Your task to perform on an android device: toggle improve location accuracy Image 0: 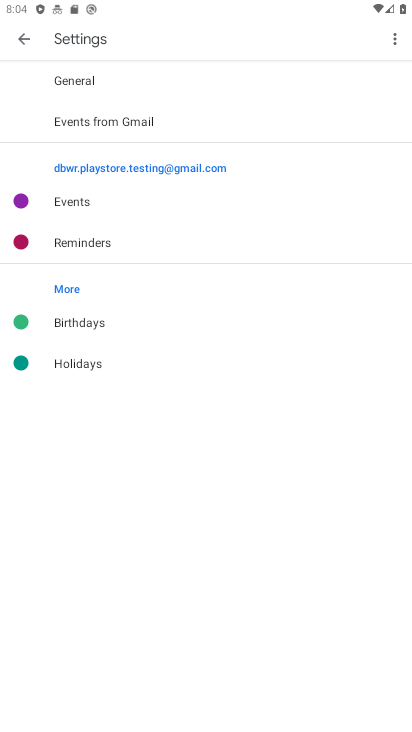
Step 0: press back button
Your task to perform on an android device: toggle improve location accuracy Image 1: 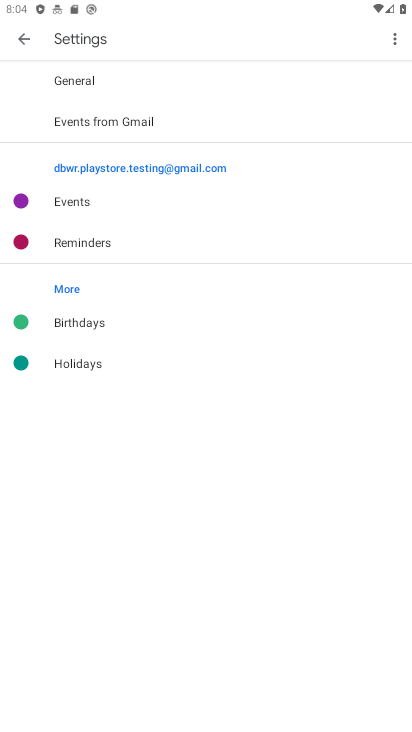
Step 1: press back button
Your task to perform on an android device: toggle improve location accuracy Image 2: 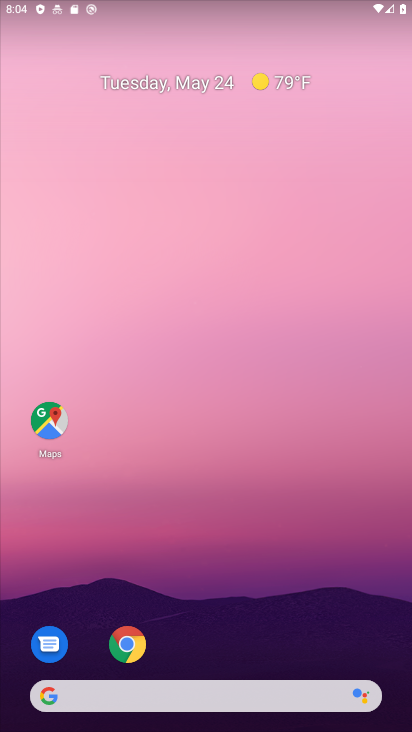
Step 2: drag from (199, 250) to (194, 16)
Your task to perform on an android device: toggle improve location accuracy Image 3: 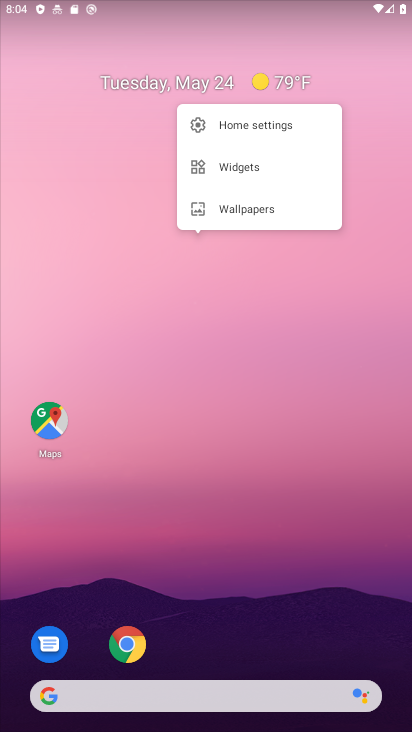
Step 3: drag from (243, 651) to (236, 182)
Your task to perform on an android device: toggle improve location accuracy Image 4: 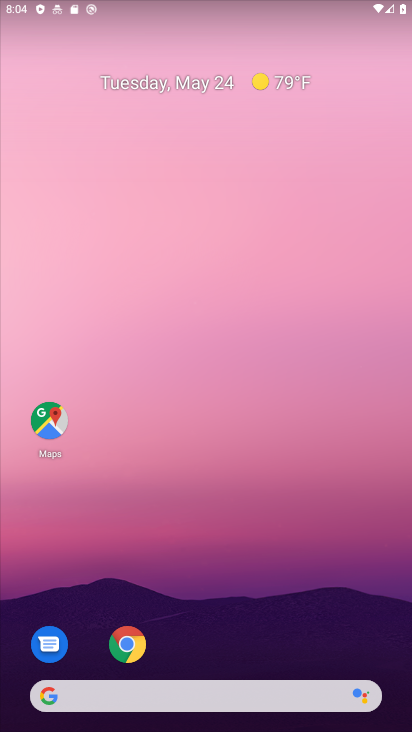
Step 4: drag from (188, 170) to (202, 113)
Your task to perform on an android device: toggle improve location accuracy Image 5: 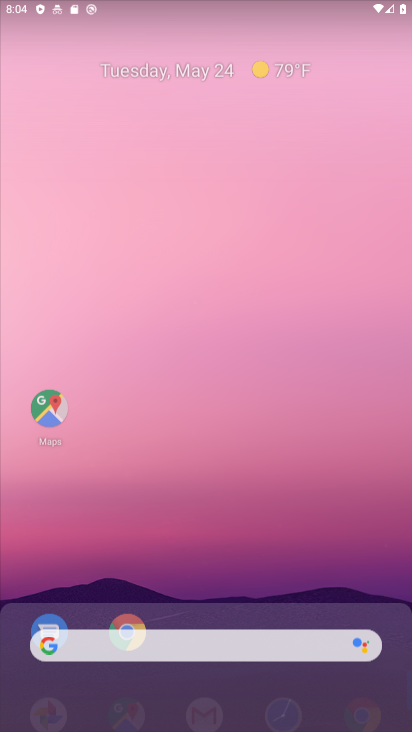
Step 5: drag from (145, 154) to (121, 11)
Your task to perform on an android device: toggle improve location accuracy Image 6: 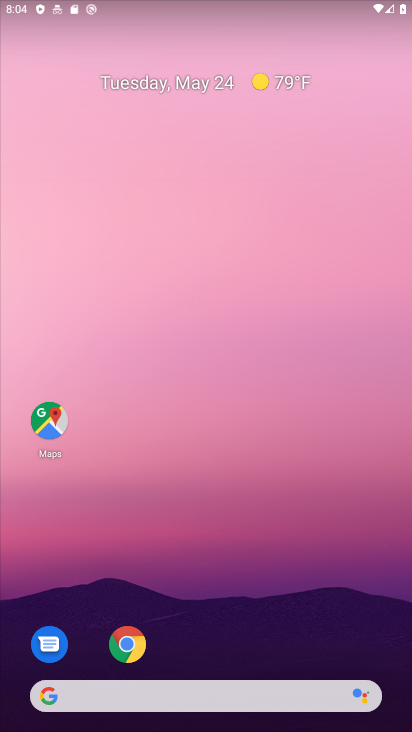
Step 6: drag from (157, 498) to (259, 14)
Your task to perform on an android device: toggle improve location accuracy Image 7: 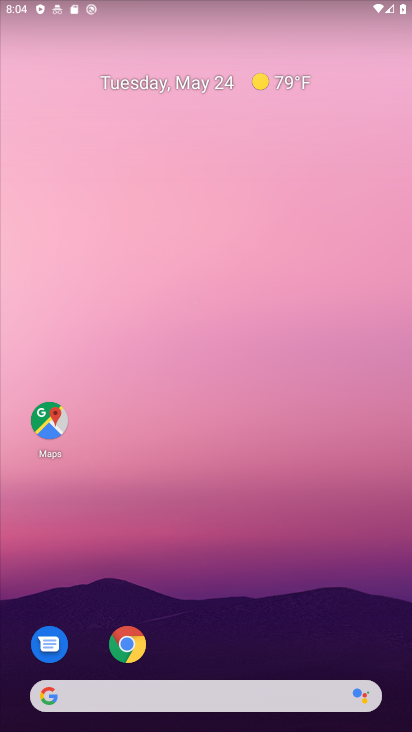
Step 7: click (233, 32)
Your task to perform on an android device: toggle improve location accuracy Image 8: 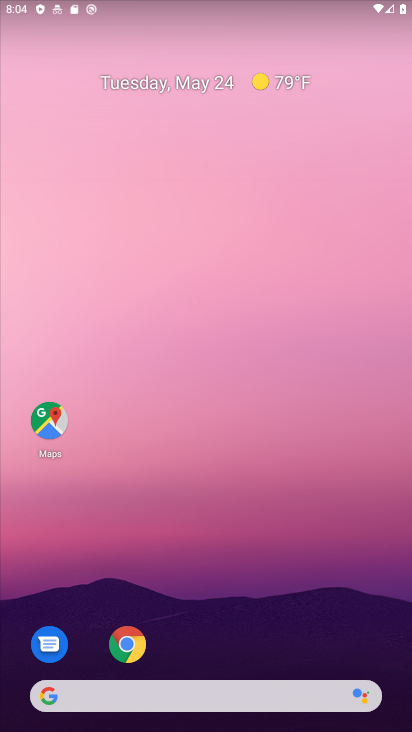
Step 8: drag from (71, 543) to (261, 114)
Your task to perform on an android device: toggle improve location accuracy Image 9: 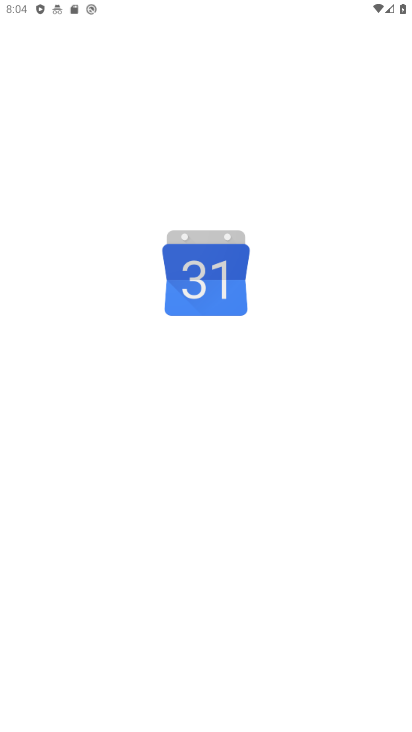
Step 9: drag from (224, 343) to (142, 16)
Your task to perform on an android device: toggle improve location accuracy Image 10: 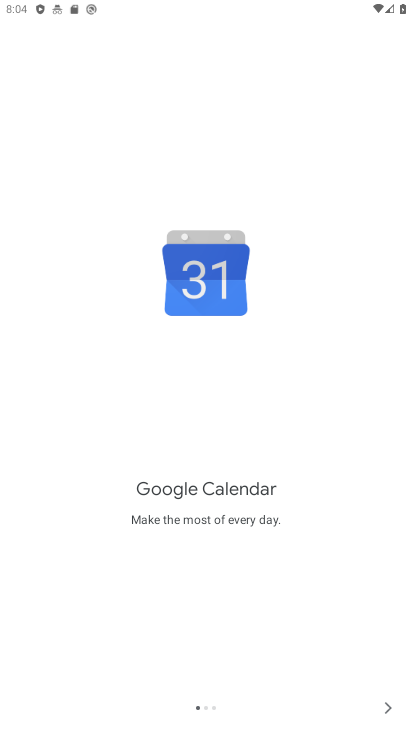
Step 10: click (390, 700)
Your task to perform on an android device: toggle improve location accuracy Image 11: 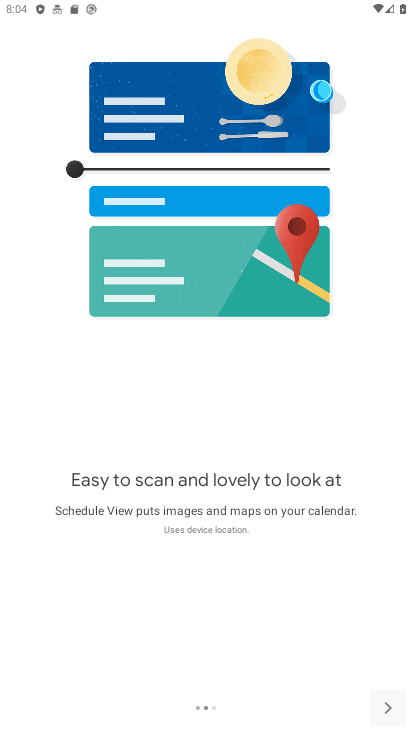
Step 11: click (387, 699)
Your task to perform on an android device: toggle improve location accuracy Image 12: 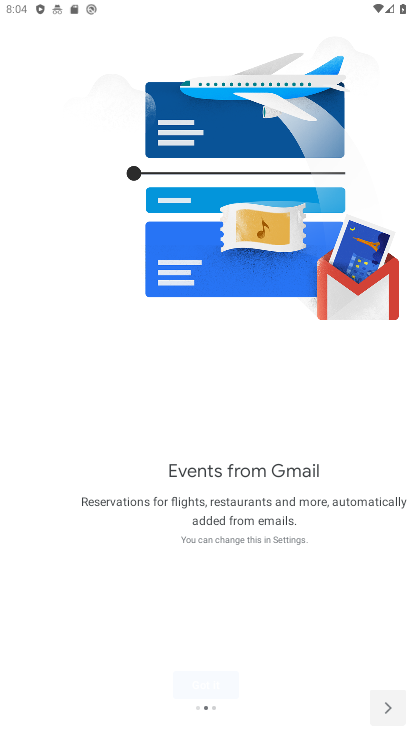
Step 12: click (401, 702)
Your task to perform on an android device: toggle improve location accuracy Image 13: 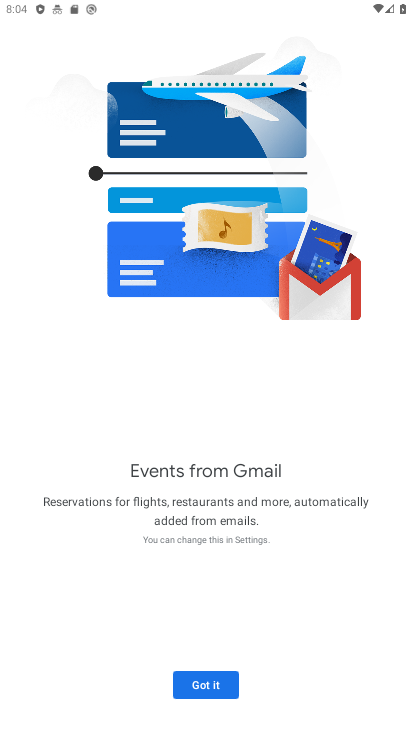
Step 13: click (387, 698)
Your task to perform on an android device: toggle improve location accuracy Image 14: 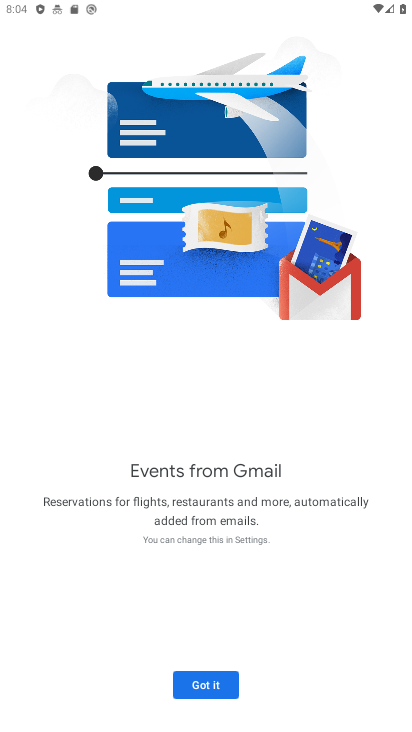
Step 14: click (213, 685)
Your task to perform on an android device: toggle improve location accuracy Image 15: 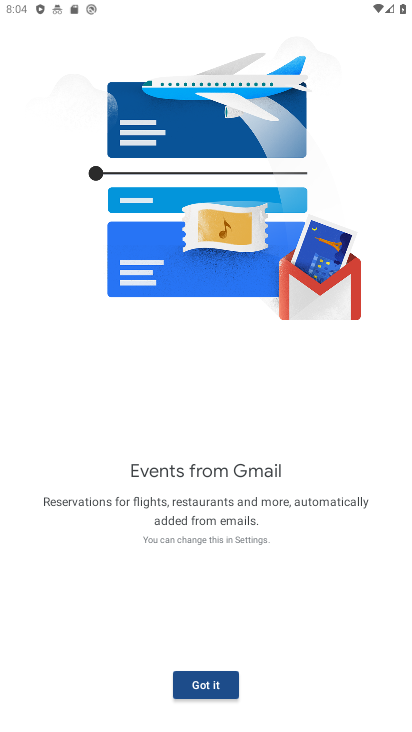
Step 15: click (216, 688)
Your task to perform on an android device: toggle improve location accuracy Image 16: 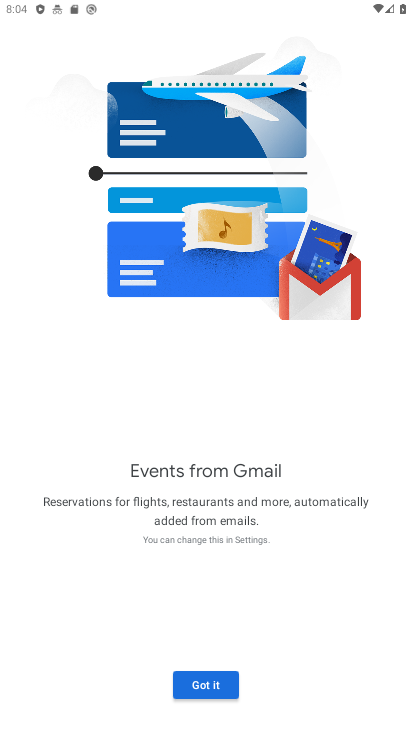
Step 16: click (217, 688)
Your task to perform on an android device: toggle improve location accuracy Image 17: 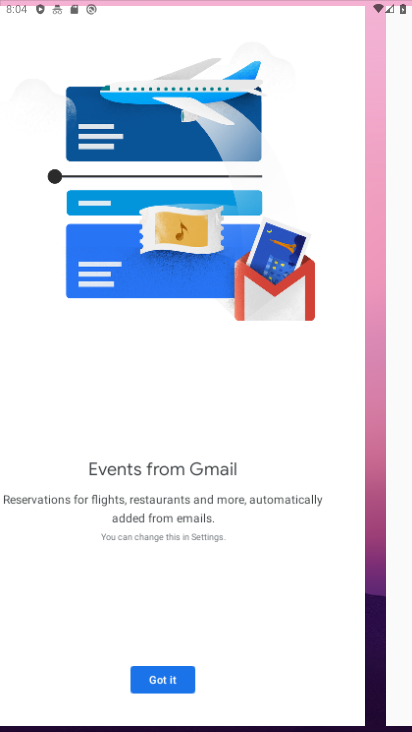
Step 17: click (218, 689)
Your task to perform on an android device: toggle improve location accuracy Image 18: 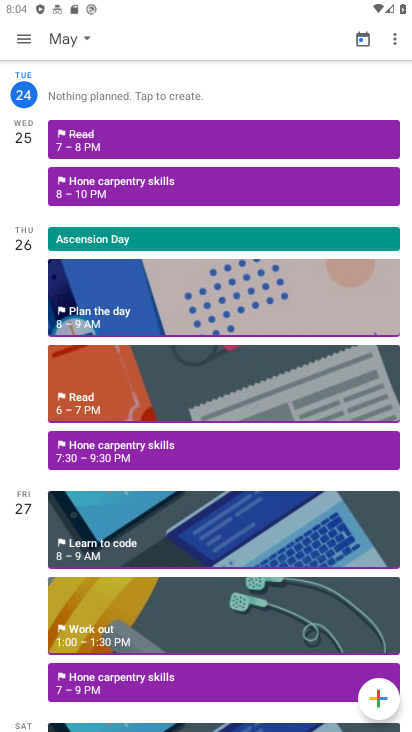
Step 18: press back button
Your task to perform on an android device: toggle improve location accuracy Image 19: 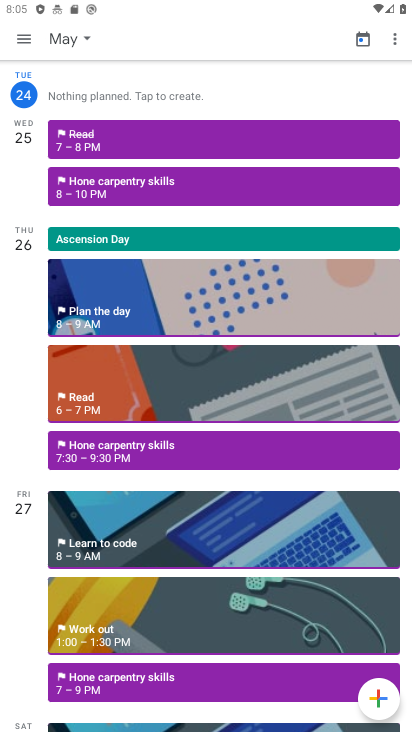
Step 19: press back button
Your task to perform on an android device: toggle improve location accuracy Image 20: 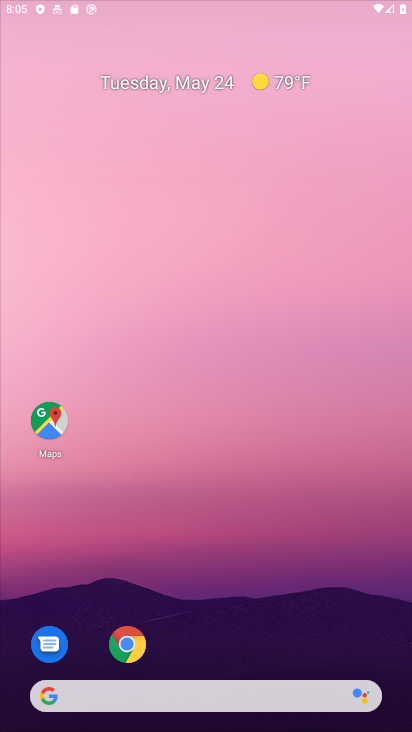
Step 20: press back button
Your task to perform on an android device: toggle improve location accuracy Image 21: 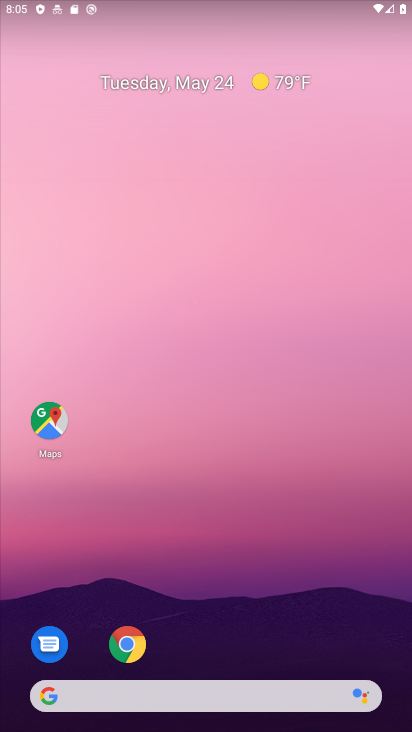
Step 21: drag from (274, 728) to (118, 0)
Your task to perform on an android device: toggle improve location accuracy Image 22: 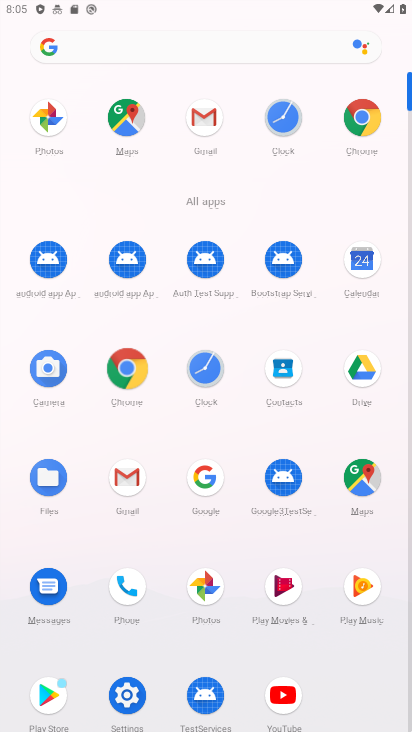
Step 22: click (365, 473)
Your task to perform on an android device: toggle improve location accuracy Image 23: 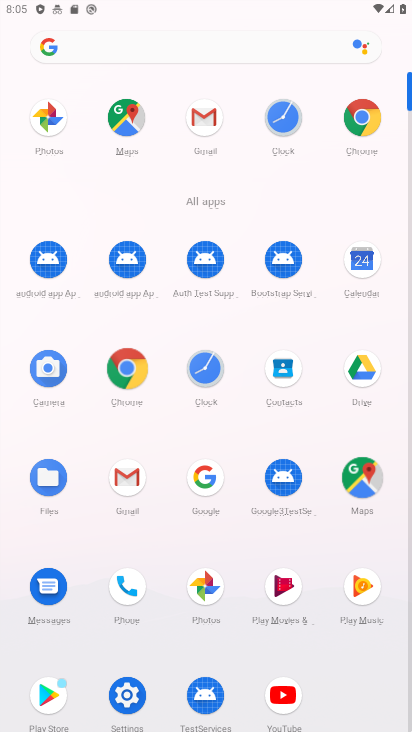
Step 23: click (365, 473)
Your task to perform on an android device: toggle improve location accuracy Image 24: 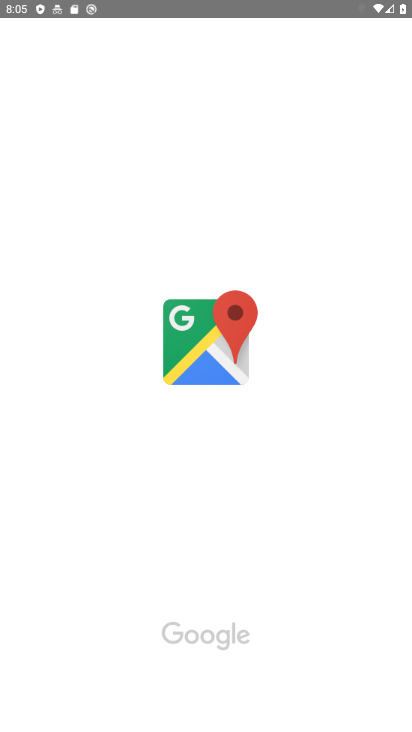
Step 24: click (365, 473)
Your task to perform on an android device: toggle improve location accuracy Image 25: 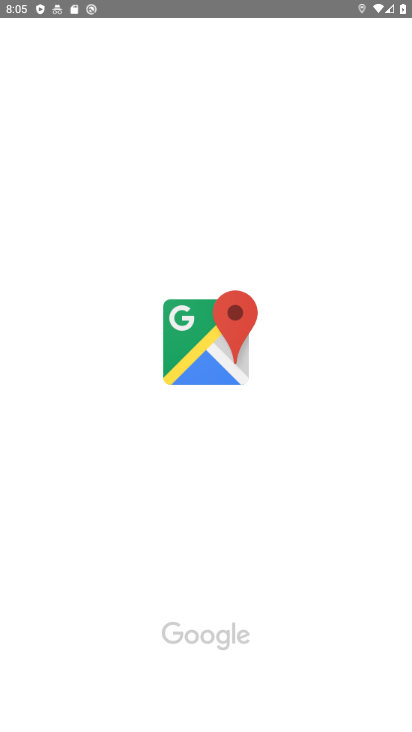
Step 25: click (366, 473)
Your task to perform on an android device: toggle improve location accuracy Image 26: 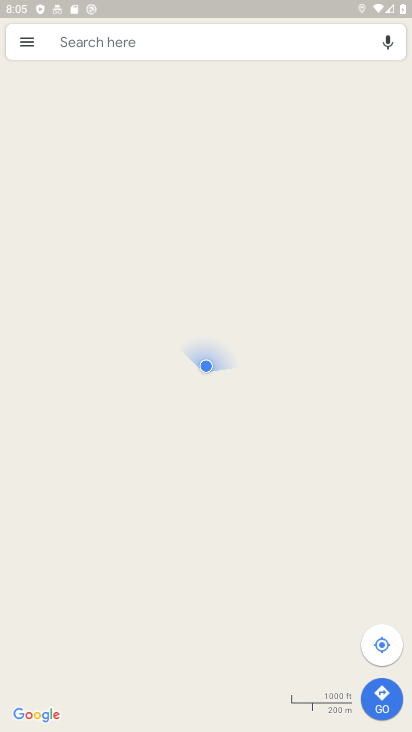
Step 26: press back button
Your task to perform on an android device: toggle improve location accuracy Image 27: 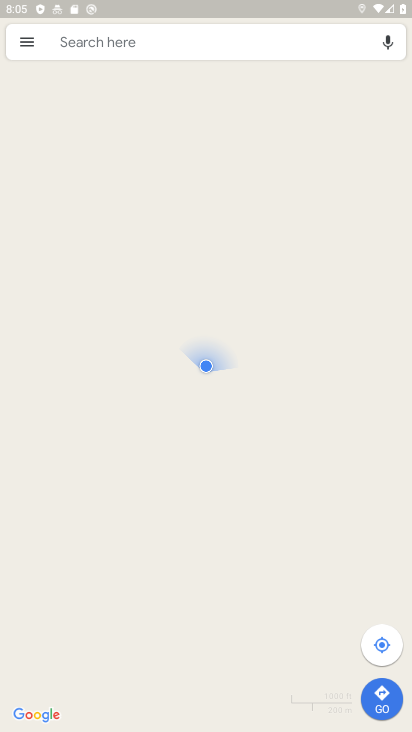
Step 27: press back button
Your task to perform on an android device: toggle improve location accuracy Image 28: 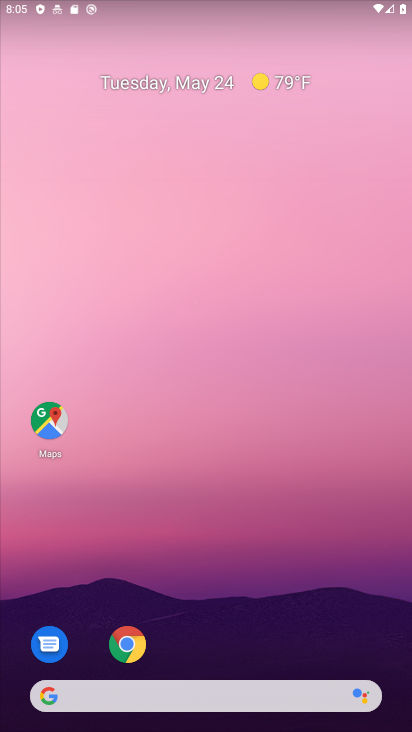
Step 28: drag from (303, 549) to (246, 99)
Your task to perform on an android device: toggle improve location accuracy Image 29: 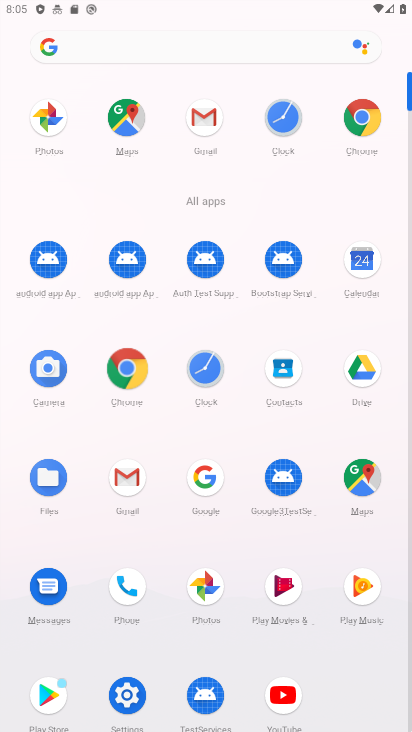
Step 29: click (135, 687)
Your task to perform on an android device: toggle improve location accuracy Image 30: 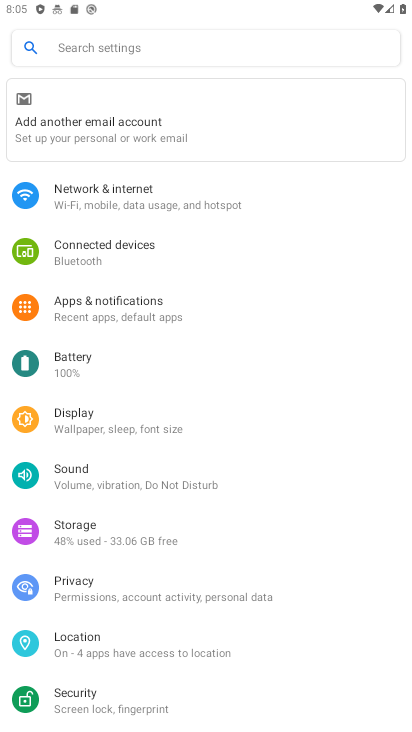
Step 30: click (91, 636)
Your task to perform on an android device: toggle improve location accuracy Image 31: 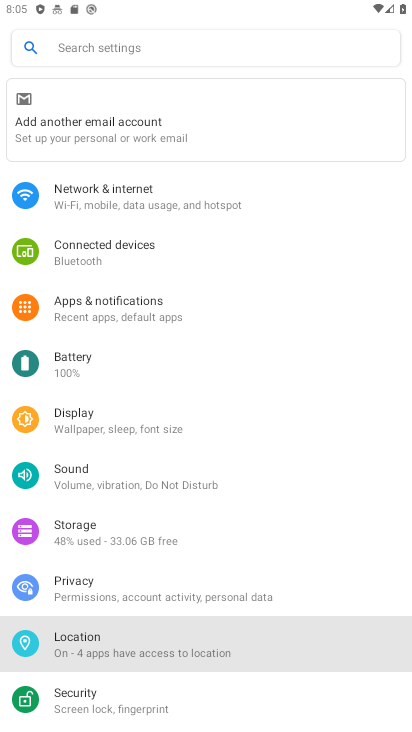
Step 31: click (94, 638)
Your task to perform on an android device: toggle improve location accuracy Image 32: 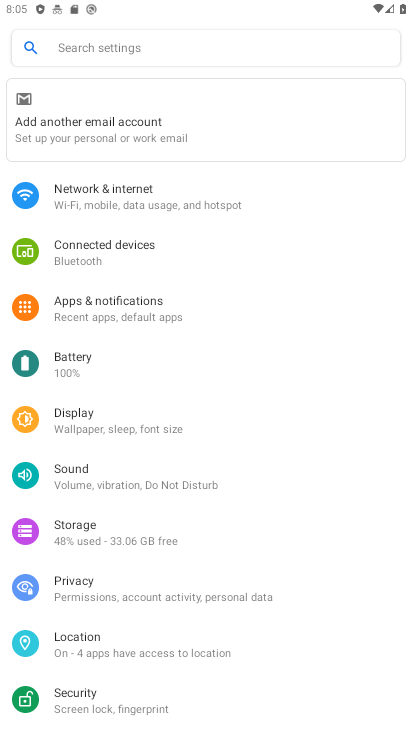
Step 32: click (96, 637)
Your task to perform on an android device: toggle improve location accuracy Image 33: 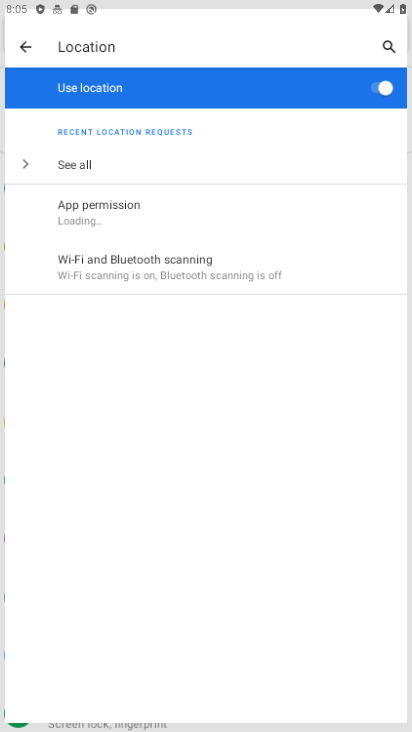
Step 33: click (97, 635)
Your task to perform on an android device: toggle improve location accuracy Image 34: 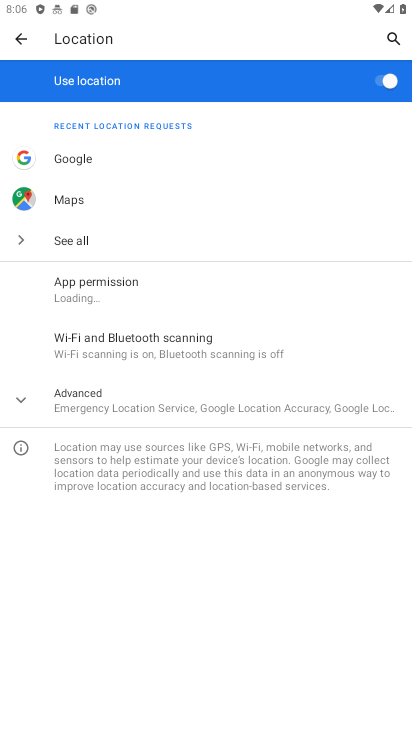
Step 34: click (81, 399)
Your task to perform on an android device: toggle improve location accuracy Image 35: 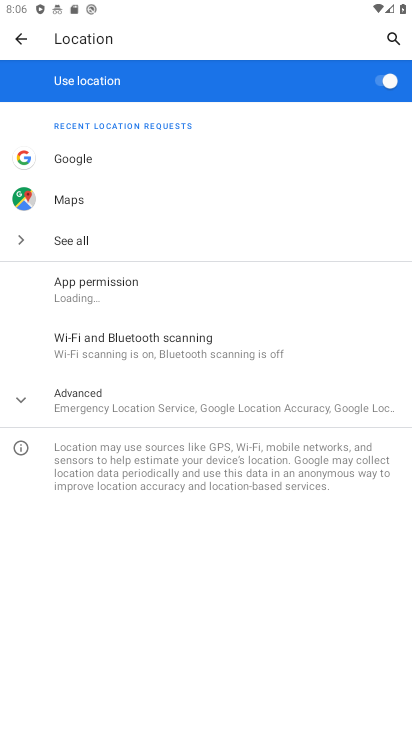
Step 35: click (81, 399)
Your task to perform on an android device: toggle improve location accuracy Image 36: 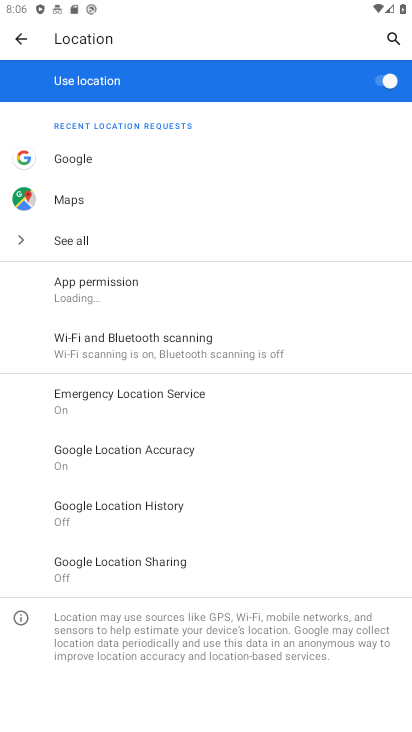
Step 36: click (88, 443)
Your task to perform on an android device: toggle improve location accuracy Image 37: 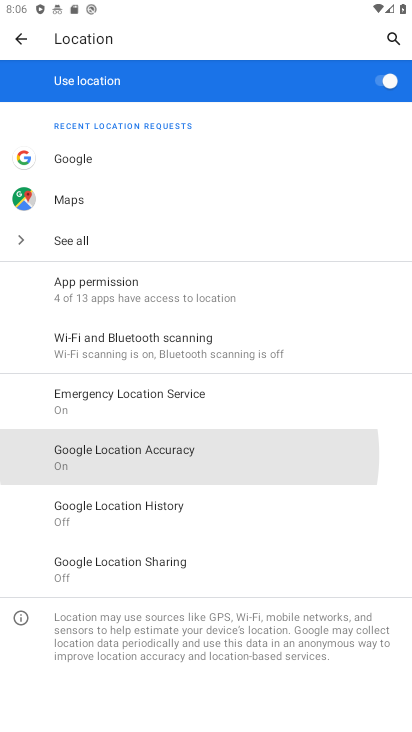
Step 37: click (88, 443)
Your task to perform on an android device: toggle improve location accuracy Image 38: 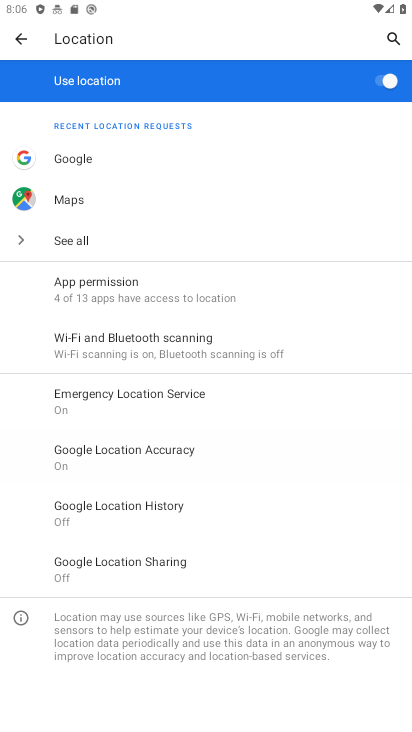
Step 38: click (88, 443)
Your task to perform on an android device: toggle improve location accuracy Image 39: 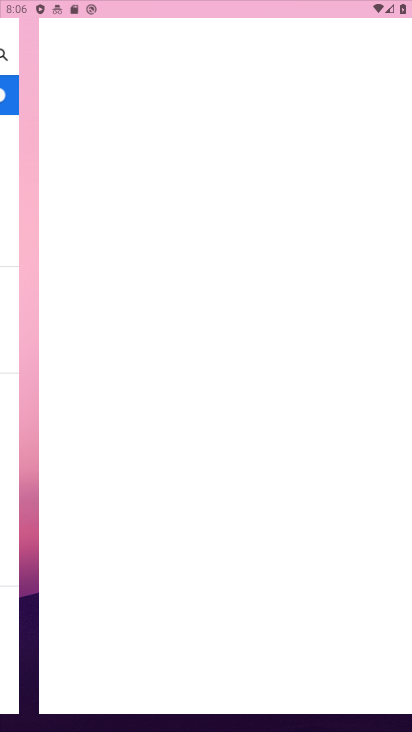
Step 39: click (90, 438)
Your task to perform on an android device: toggle improve location accuracy Image 40: 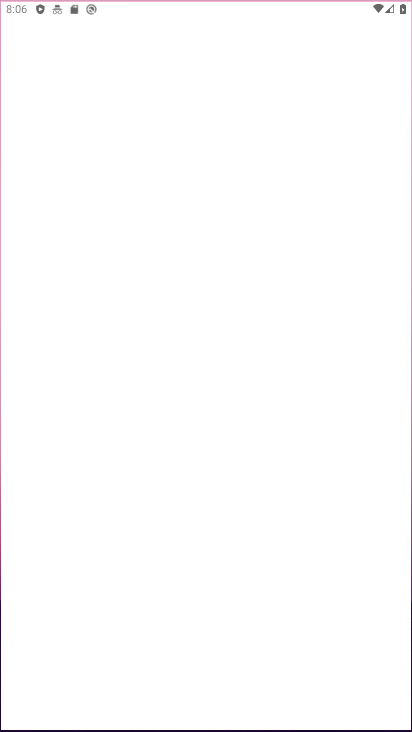
Step 40: click (92, 438)
Your task to perform on an android device: toggle improve location accuracy Image 41: 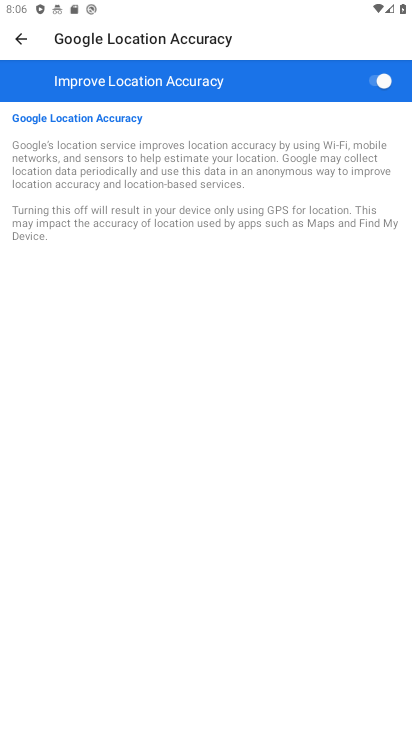
Step 41: click (373, 63)
Your task to perform on an android device: toggle improve location accuracy Image 42: 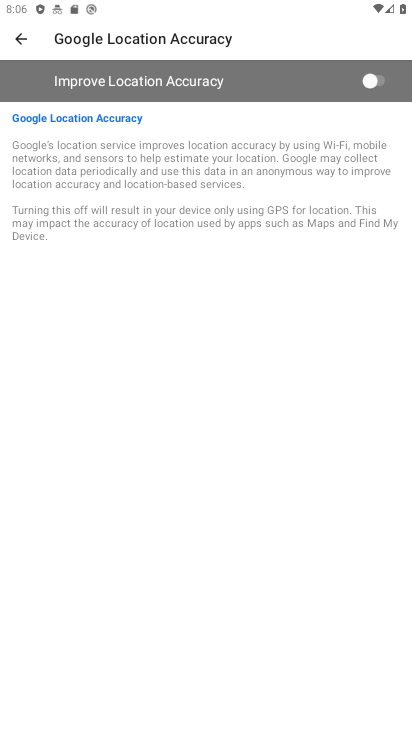
Step 42: task complete